Your task to perform on an android device: turn on airplane mode Image 0: 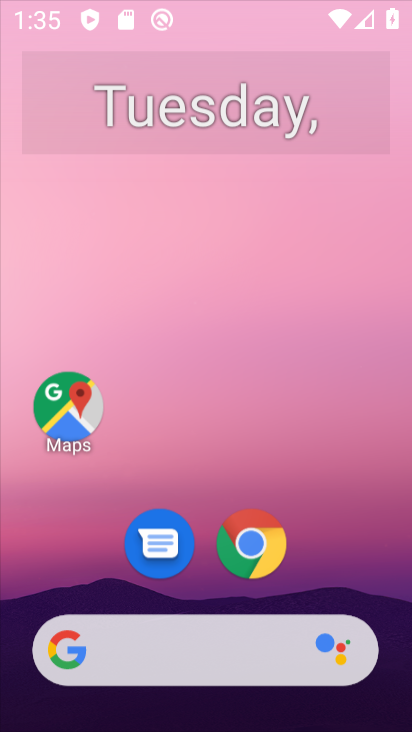
Step 0: click (268, 541)
Your task to perform on an android device: turn on airplane mode Image 1: 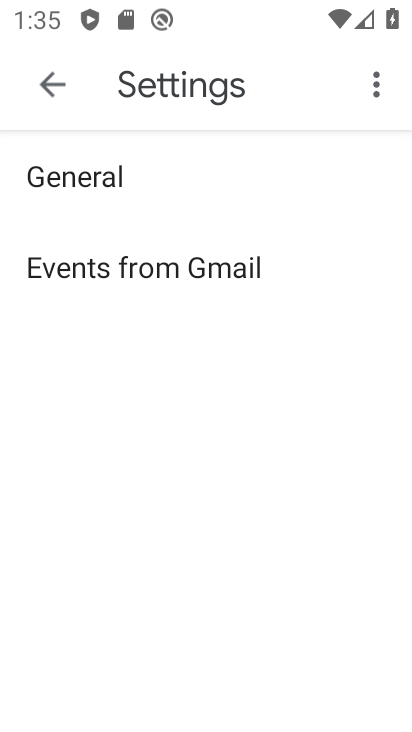
Step 1: press home button
Your task to perform on an android device: turn on airplane mode Image 2: 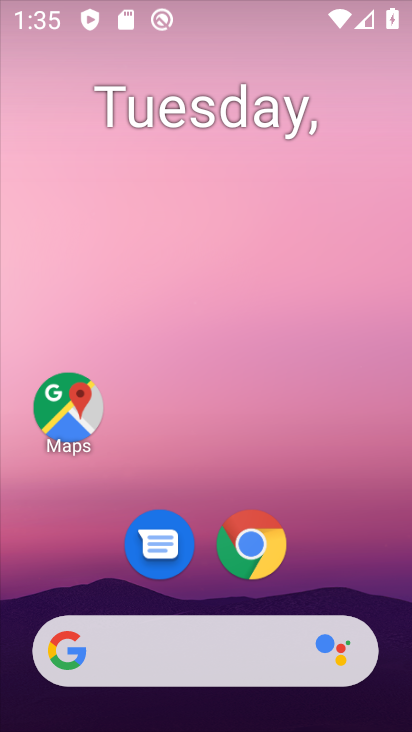
Step 2: drag from (320, 567) to (356, 92)
Your task to perform on an android device: turn on airplane mode Image 3: 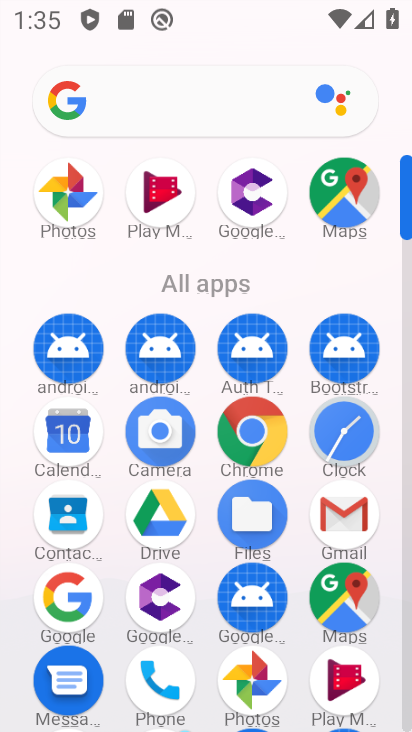
Step 3: drag from (237, 593) to (319, 188)
Your task to perform on an android device: turn on airplane mode Image 4: 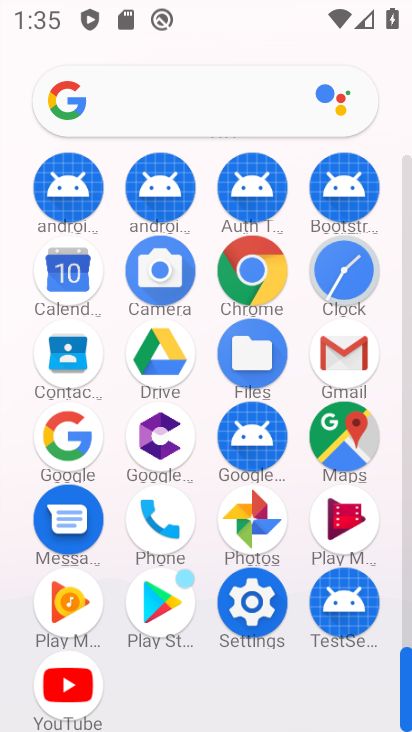
Step 4: drag from (247, 589) to (103, 236)
Your task to perform on an android device: turn on airplane mode Image 5: 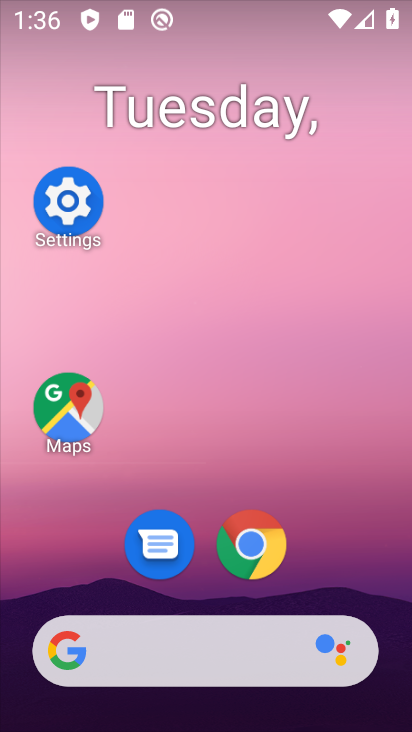
Step 5: click (83, 210)
Your task to perform on an android device: turn on airplane mode Image 6: 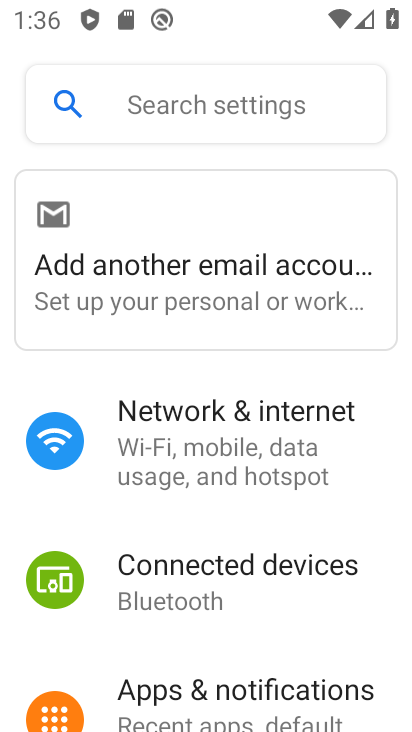
Step 6: click (279, 454)
Your task to perform on an android device: turn on airplane mode Image 7: 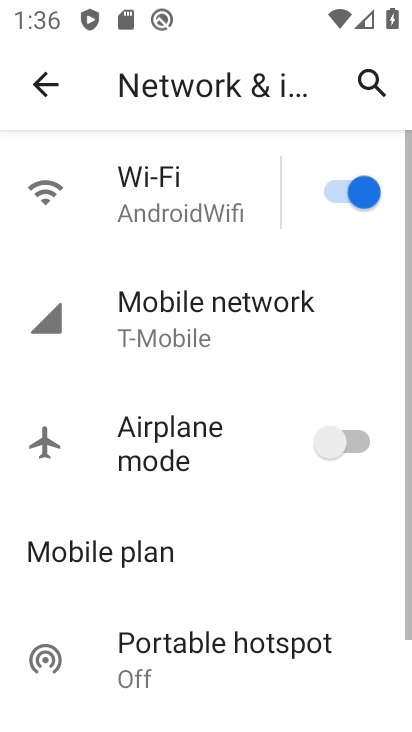
Step 7: click (346, 448)
Your task to perform on an android device: turn on airplane mode Image 8: 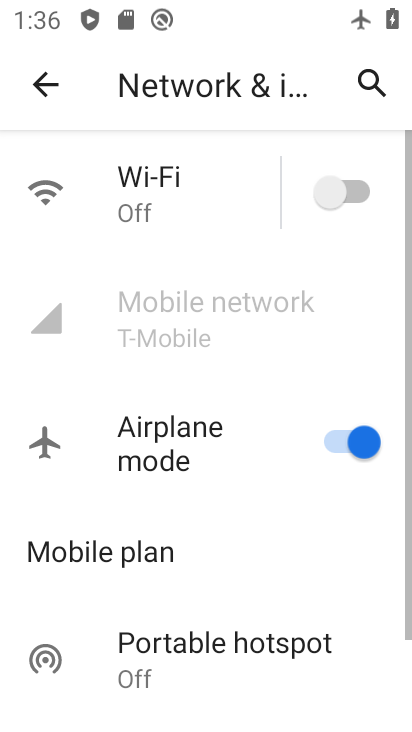
Step 8: task complete